Your task to perform on an android device: Open display settings Image 0: 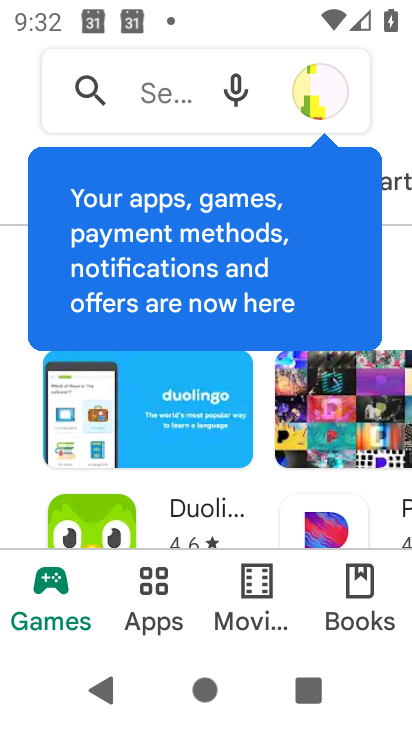
Step 0: press home button
Your task to perform on an android device: Open display settings Image 1: 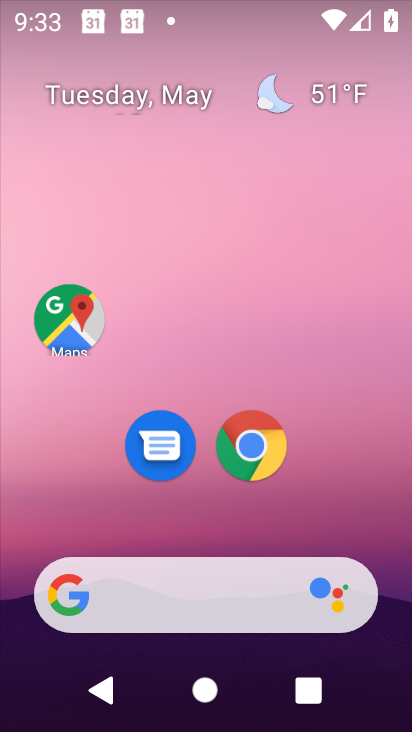
Step 1: drag from (214, 557) to (166, 40)
Your task to perform on an android device: Open display settings Image 2: 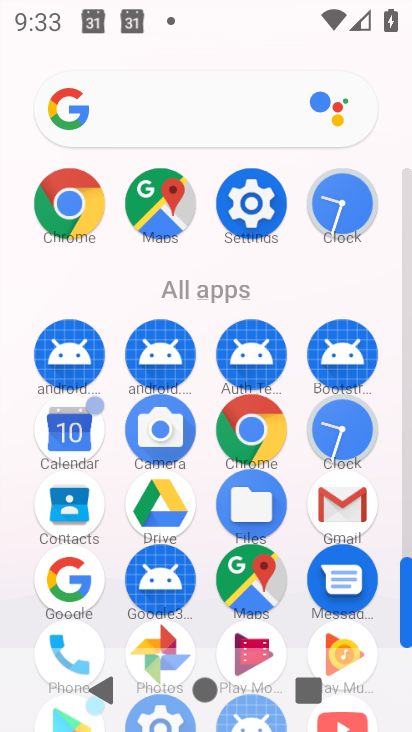
Step 2: click (257, 209)
Your task to perform on an android device: Open display settings Image 3: 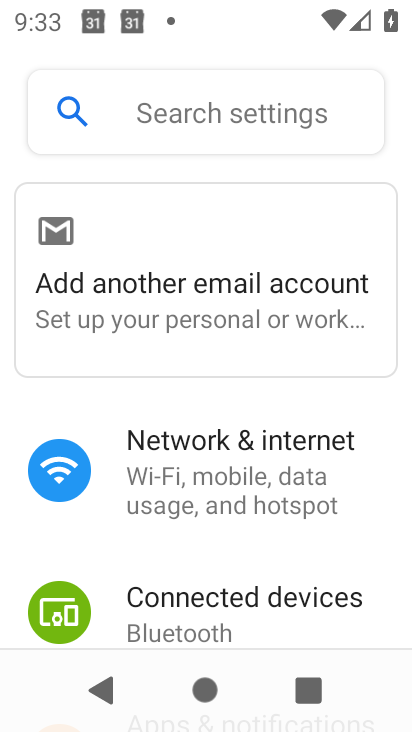
Step 3: drag from (238, 538) to (224, 160)
Your task to perform on an android device: Open display settings Image 4: 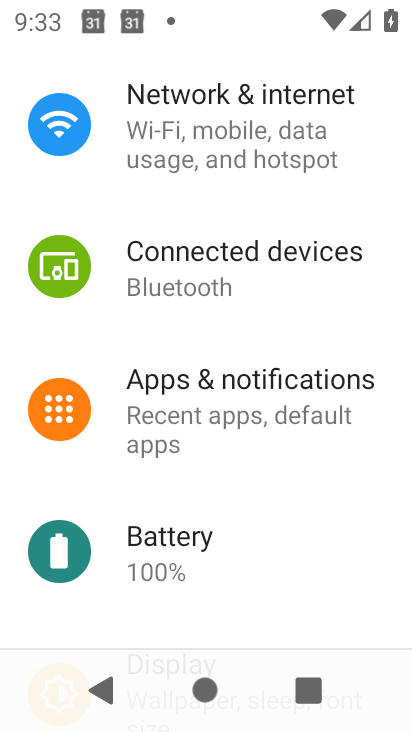
Step 4: drag from (178, 561) to (158, 8)
Your task to perform on an android device: Open display settings Image 5: 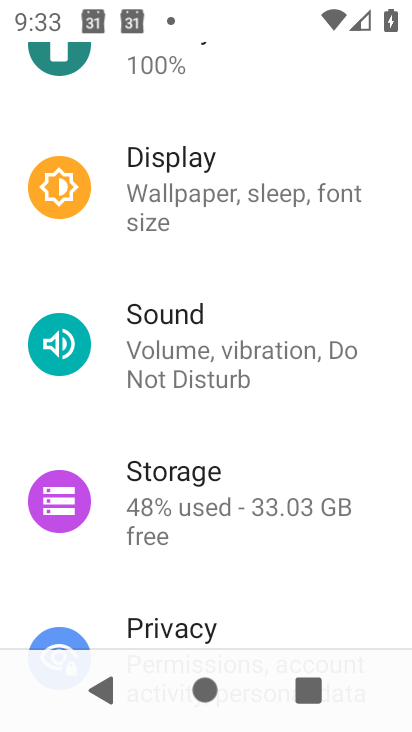
Step 5: click (153, 213)
Your task to perform on an android device: Open display settings Image 6: 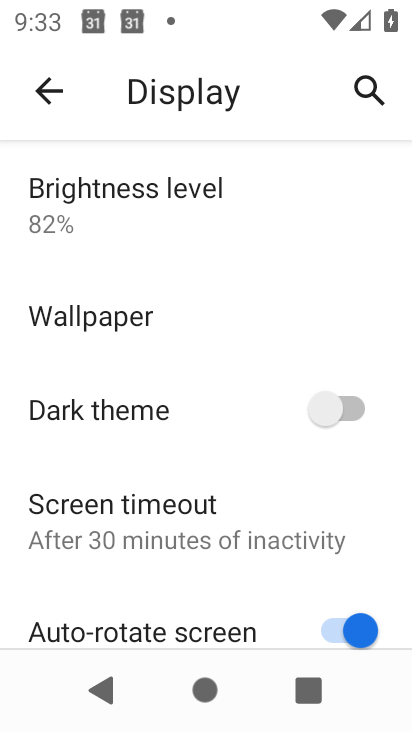
Step 6: task complete